Your task to perform on an android device: Open Wikipedia Image 0: 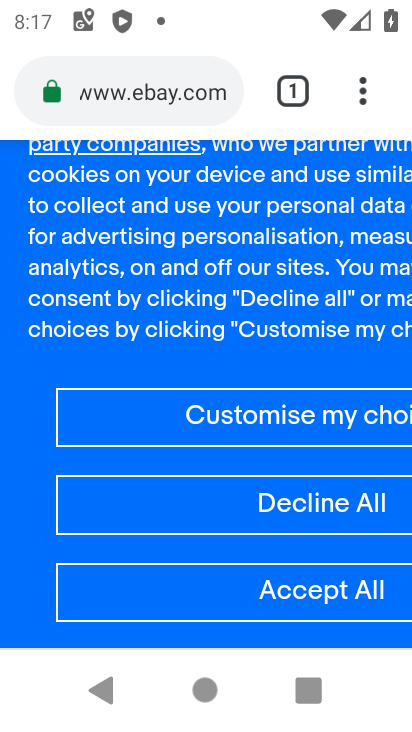
Step 0: click (296, 89)
Your task to perform on an android device: Open Wikipedia Image 1: 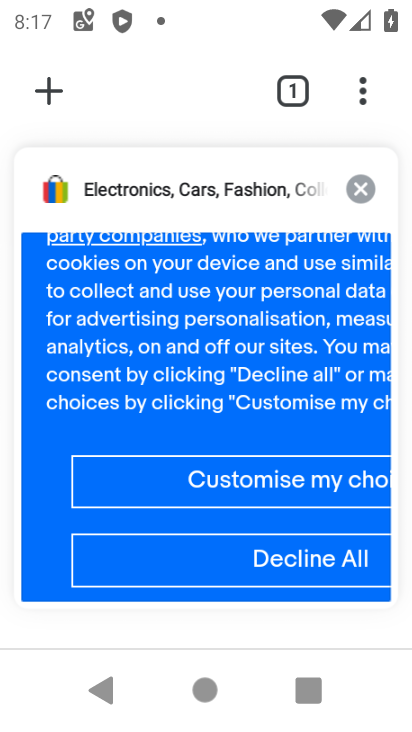
Step 1: click (364, 190)
Your task to perform on an android device: Open Wikipedia Image 2: 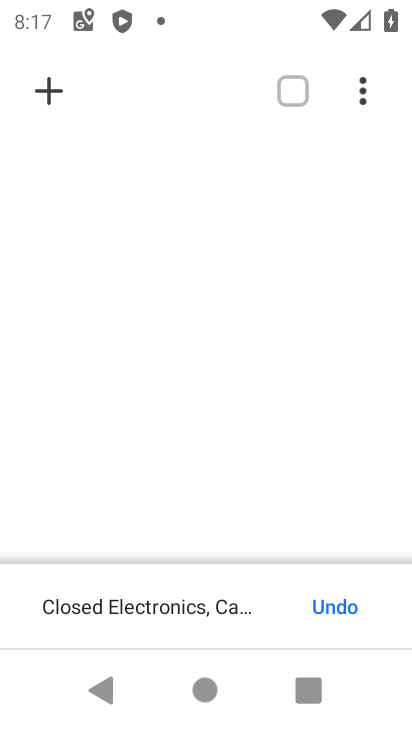
Step 2: click (61, 91)
Your task to perform on an android device: Open Wikipedia Image 3: 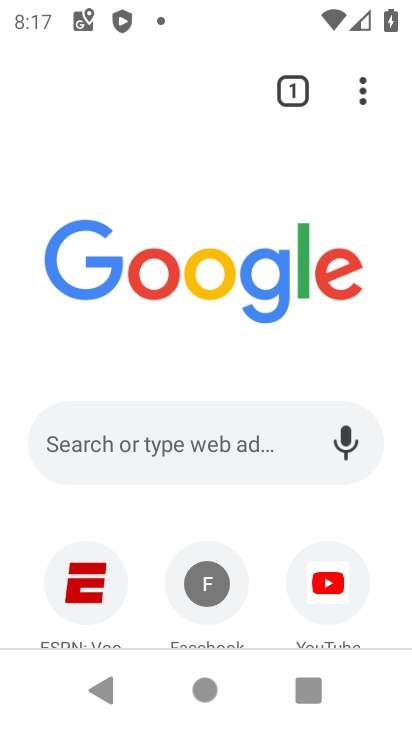
Step 3: drag from (271, 506) to (262, 113)
Your task to perform on an android device: Open Wikipedia Image 4: 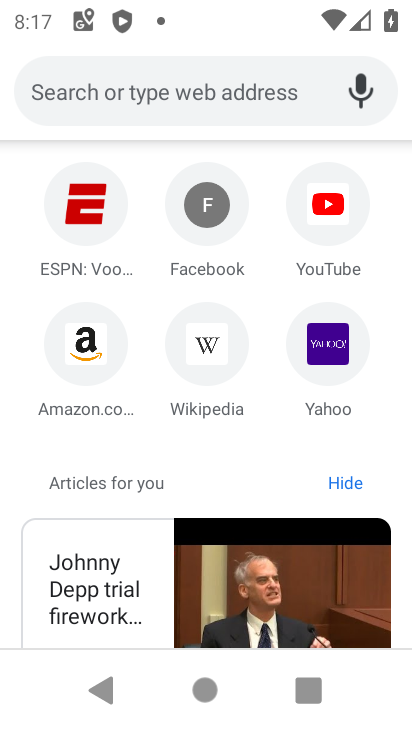
Step 4: click (215, 337)
Your task to perform on an android device: Open Wikipedia Image 5: 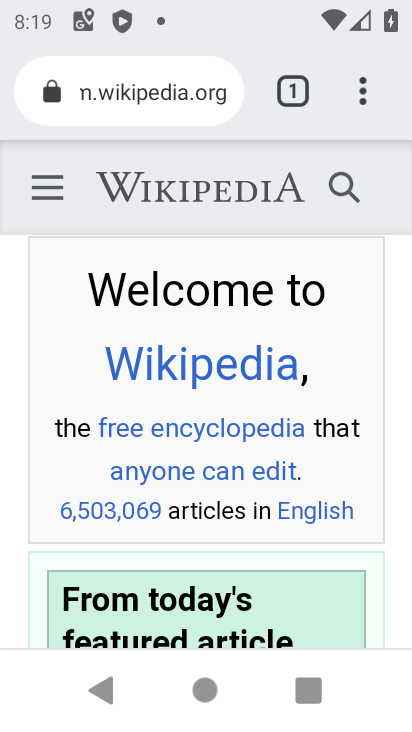
Step 5: task complete